Your task to perform on an android device: Open the stopwatch Image 0: 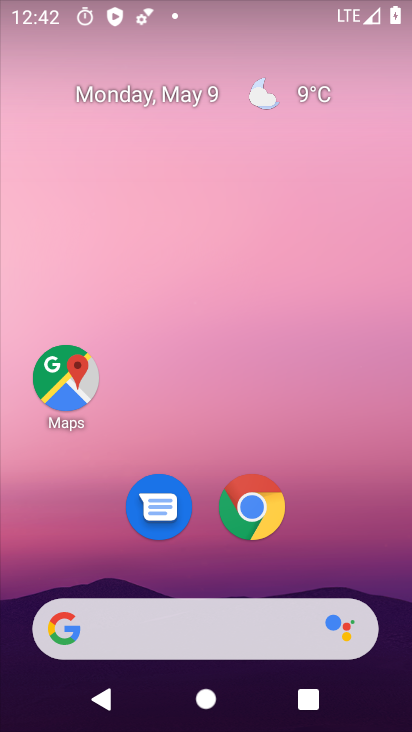
Step 0: drag from (227, 720) to (207, 123)
Your task to perform on an android device: Open the stopwatch Image 1: 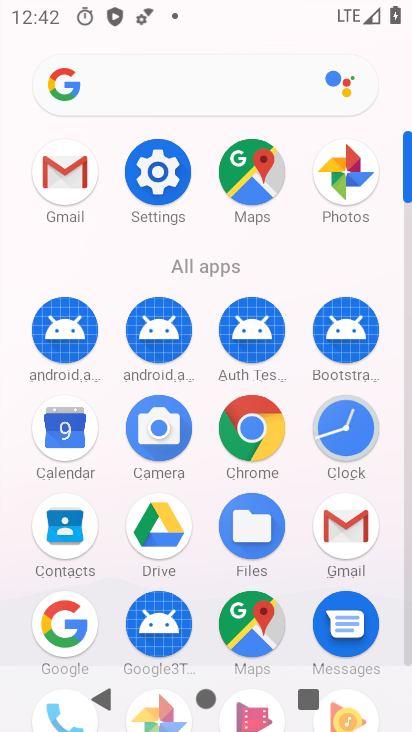
Step 1: click (352, 432)
Your task to perform on an android device: Open the stopwatch Image 2: 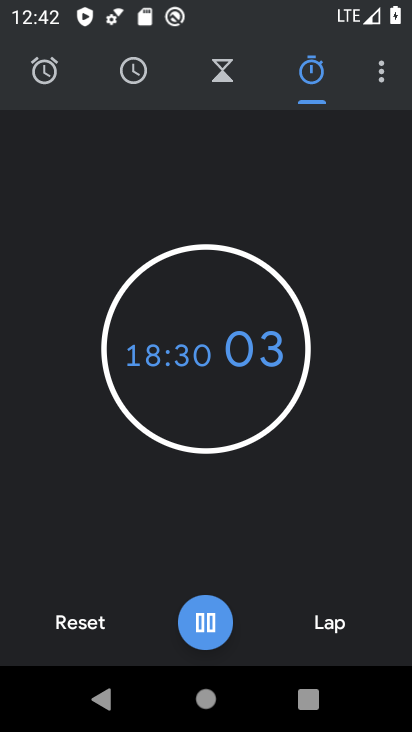
Step 2: task complete